Your task to perform on an android device: What's the weather going to be tomorrow? Image 0: 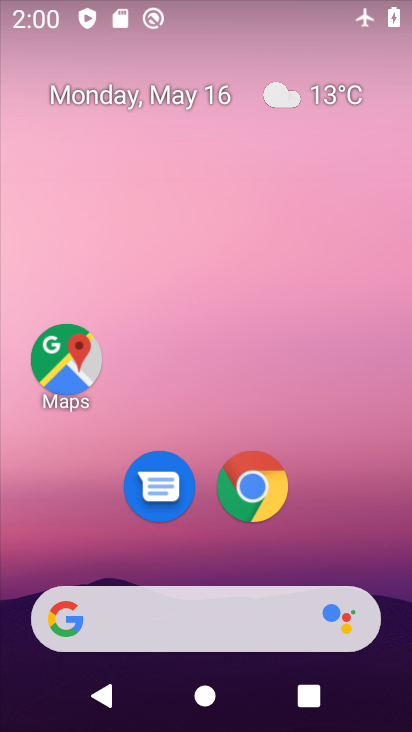
Step 0: drag from (376, 570) to (337, 13)
Your task to perform on an android device: What's the weather going to be tomorrow? Image 1: 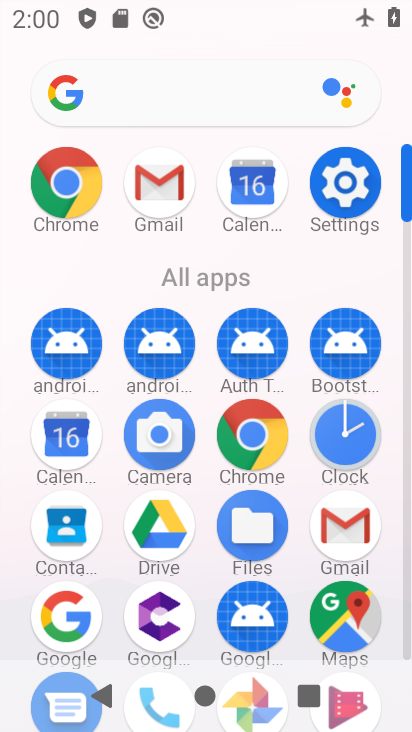
Step 1: press home button
Your task to perform on an android device: What's the weather going to be tomorrow? Image 2: 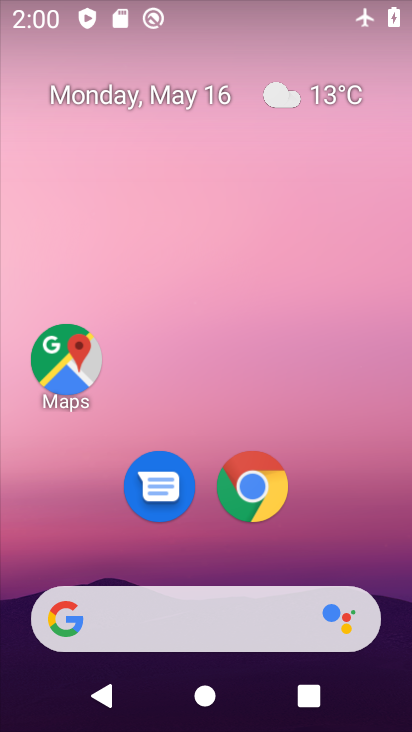
Step 2: click (334, 105)
Your task to perform on an android device: What's the weather going to be tomorrow? Image 3: 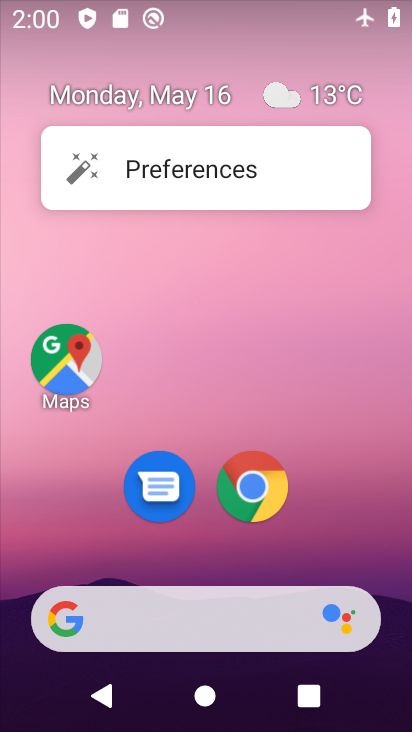
Step 3: click (334, 105)
Your task to perform on an android device: What's the weather going to be tomorrow? Image 4: 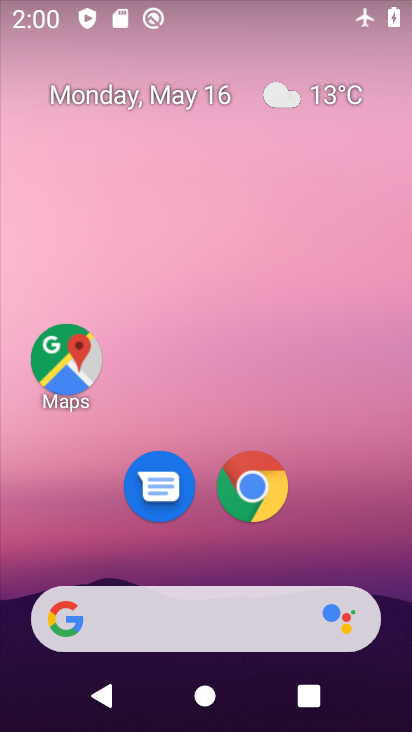
Step 4: click (333, 79)
Your task to perform on an android device: What's the weather going to be tomorrow? Image 5: 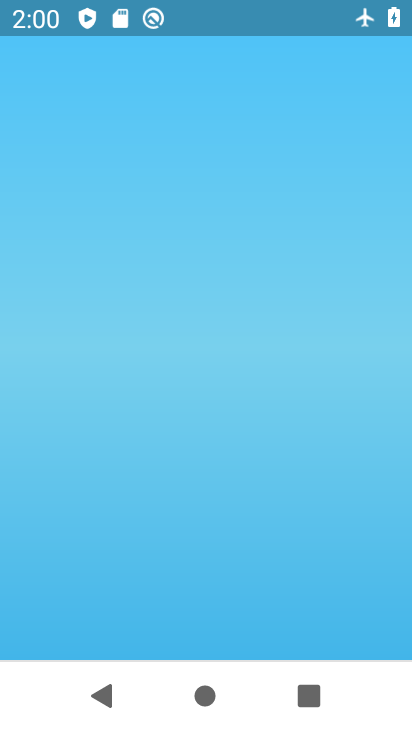
Step 5: click (341, 100)
Your task to perform on an android device: What's the weather going to be tomorrow? Image 6: 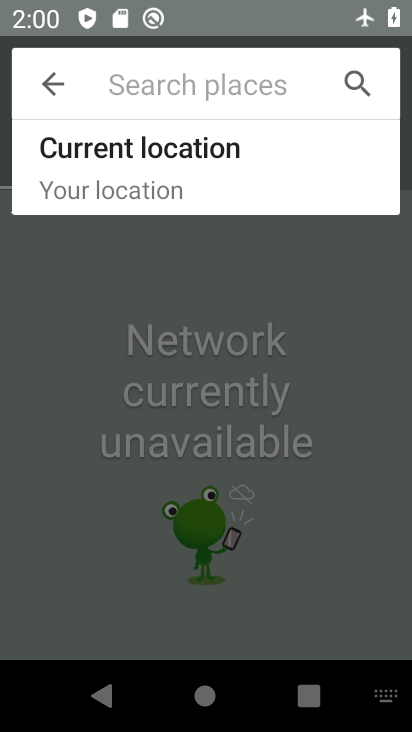
Step 6: task complete